Your task to perform on an android device: Go to notification settings Image 0: 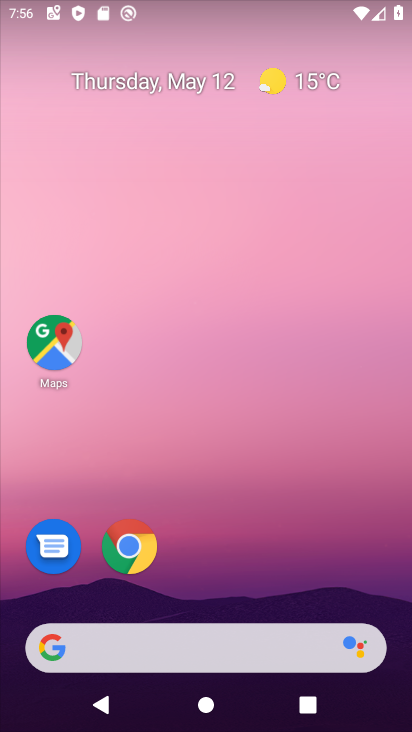
Step 0: drag from (189, 643) to (304, 63)
Your task to perform on an android device: Go to notification settings Image 1: 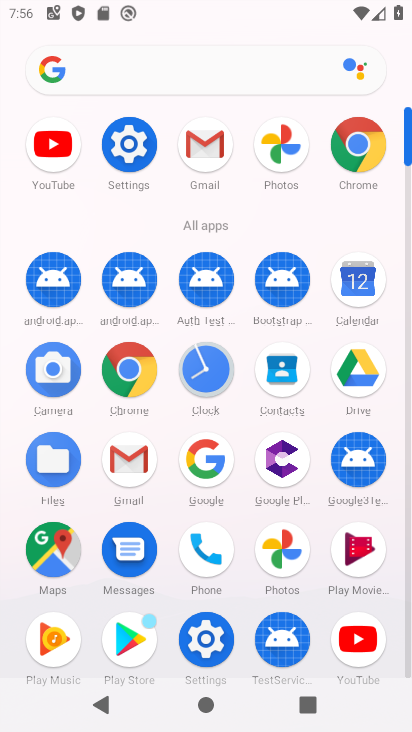
Step 1: click (127, 150)
Your task to perform on an android device: Go to notification settings Image 2: 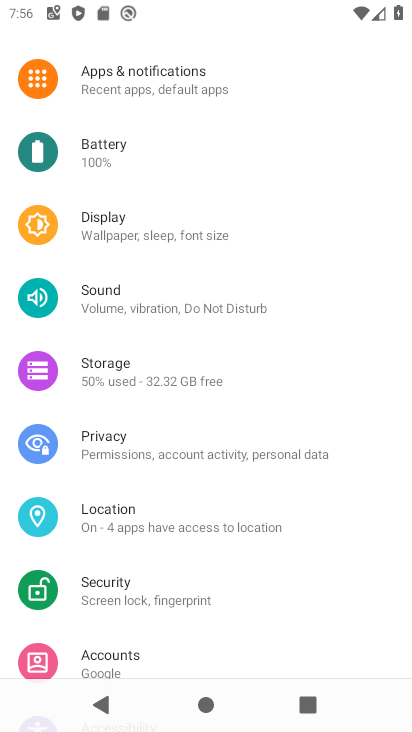
Step 2: click (183, 88)
Your task to perform on an android device: Go to notification settings Image 3: 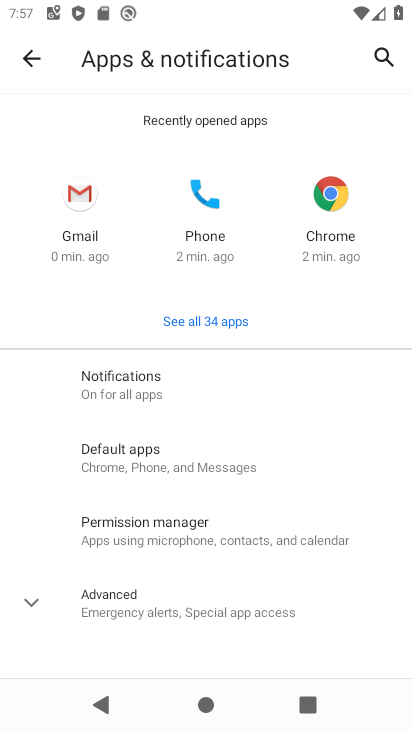
Step 3: click (97, 384)
Your task to perform on an android device: Go to notification settings Image 4: 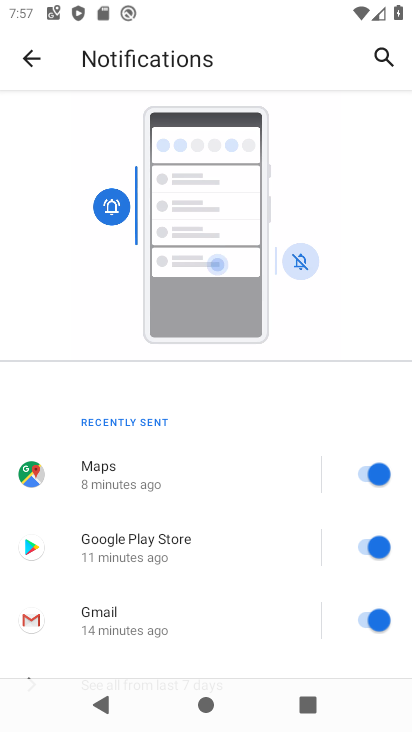
Step 4: task complete